Your task to perform on an android device: turn off wifi Image 0: 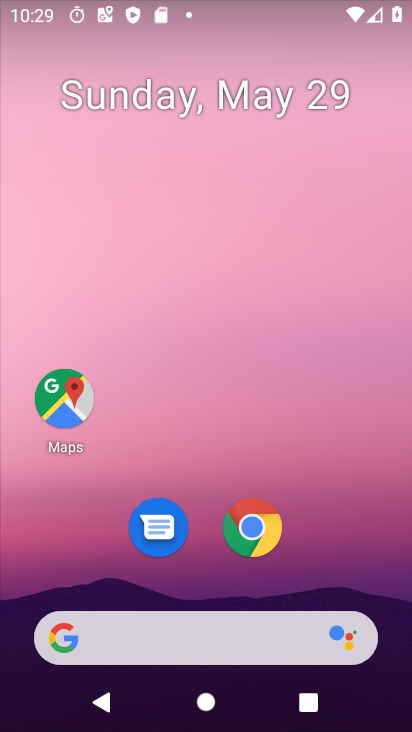
Step 0: drag from (329, 391) to (262, 101)
Your task to perform on an android device: turn off wifi Image 1: 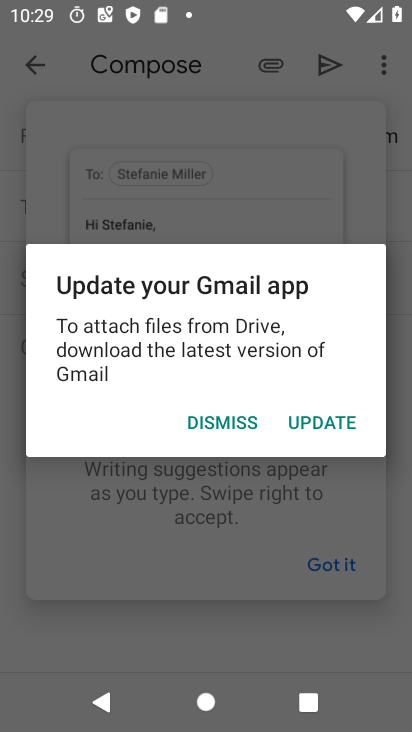
Step 1: press home button
Your task to perform on an android device: turn off wifi Image 2: 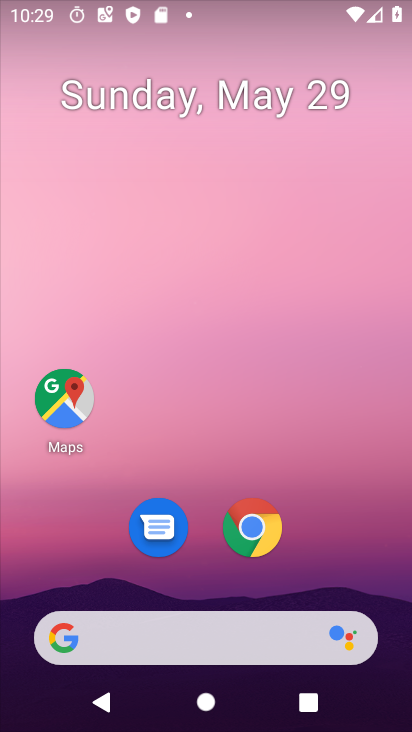
Step 2: drag from (371, 550) to (260, 179)
Your task to perform on an android device: turn off wifi Image 3: 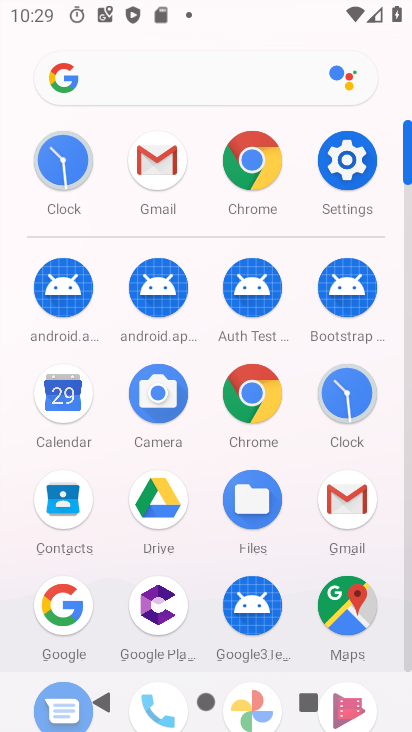
Step 3: click (355, 143)
Your task to perform on an android device: turn off wifi Image 4: 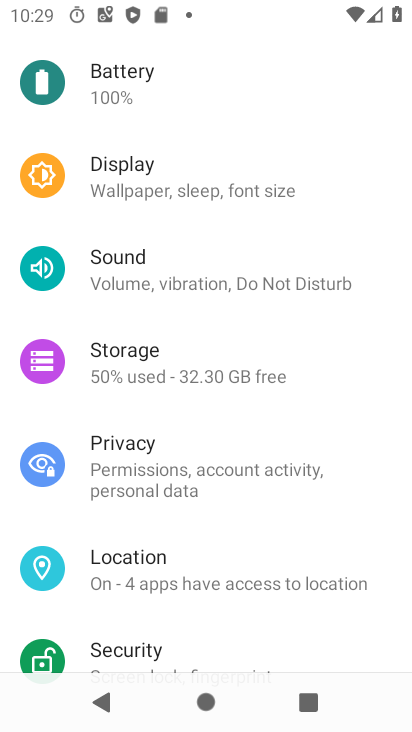
Step 4: drag from (221, 173) to (230, 724)
Your task to perform on an android device: turn off wifi Image 5: 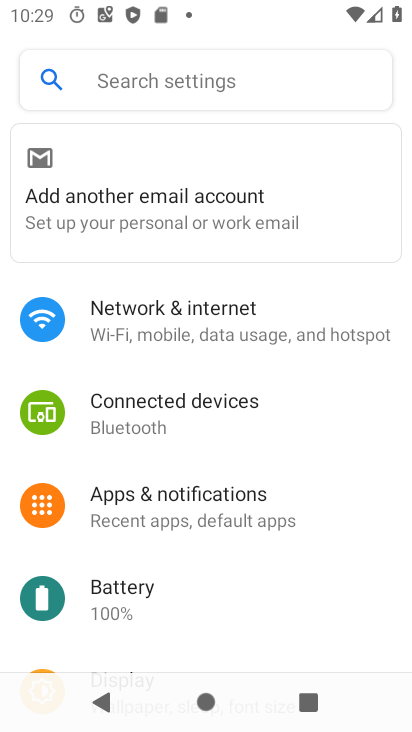
Step 5: click (181, 323)
Your task to perform on an android device: turn off wifi Image 6: 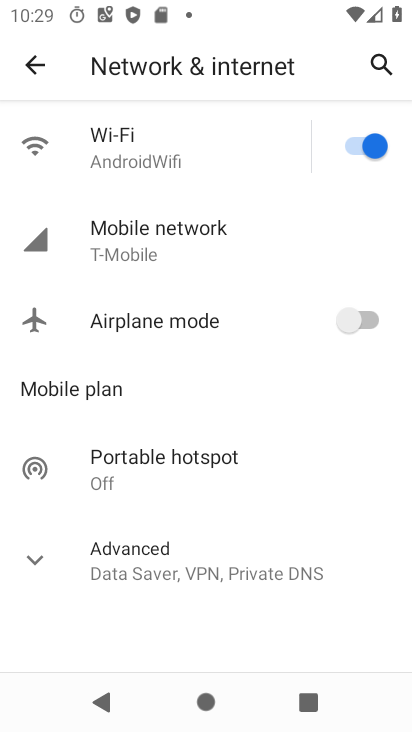
Step 6: click (348, 148)
Your task to perform on an android device: turn off wifi Image 7: 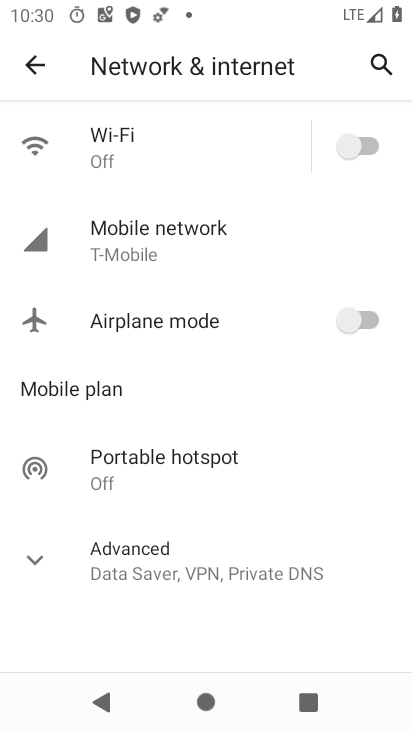
Step 7: task complete